Your task to perform on an android device: turn on improve location accuracy Image 0: 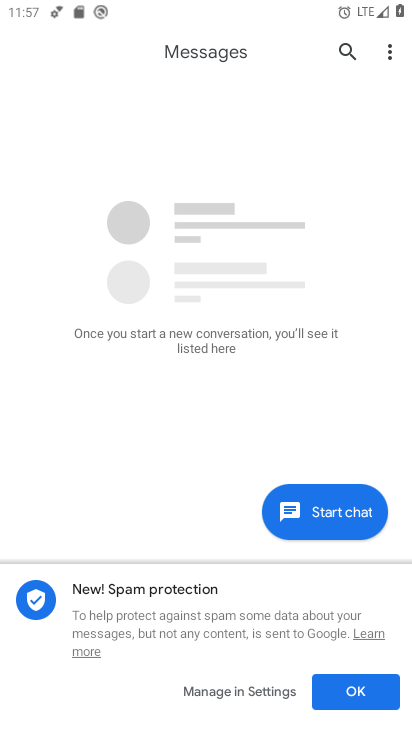
Step 0: press home button
Your task to perform on an android device: turn on improve location accuracy Image 1: 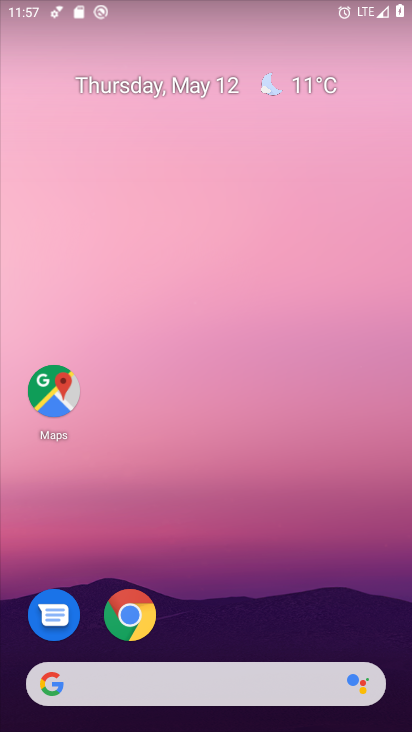
Step 1: drag from (253, 345) to (297, 19)
Your task to perform on an android device: turn on improve location accuracy Image 2: 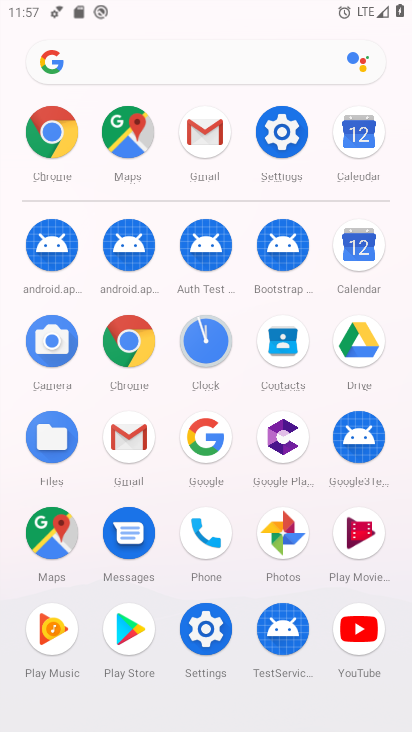
Step 2: click (294, 133)
Your task to perform on an android device: turn on improve location accuracy Image 3: 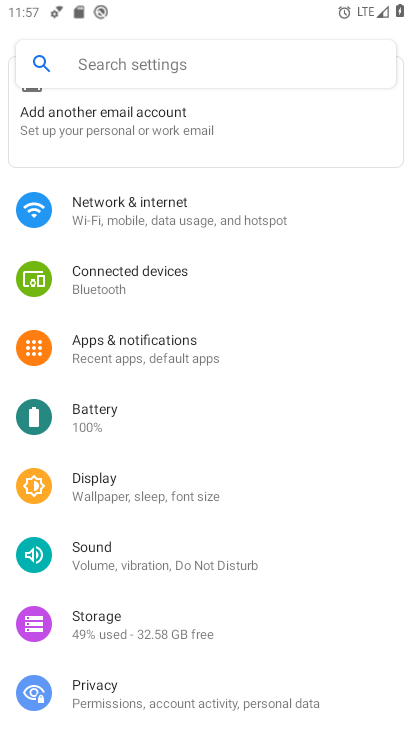
Step 3: drag from (153, 612) to (236, 164)
Your task to perform on an android device: turn on improve location accuracy Image 4: 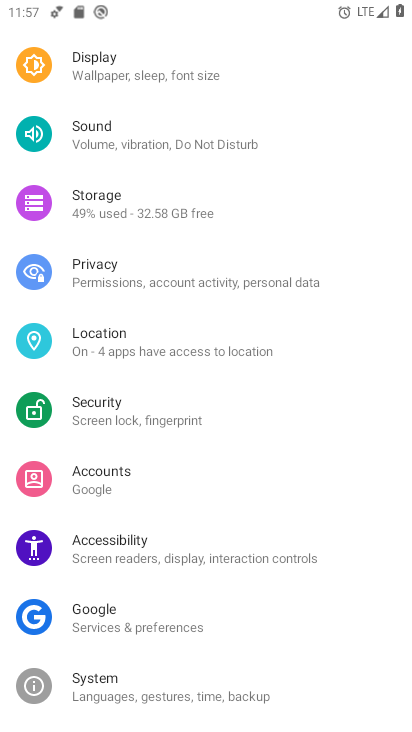
Step 4: click (208, 339)
Your task to perform on an android device: turn on improve location accuracy Image 5: 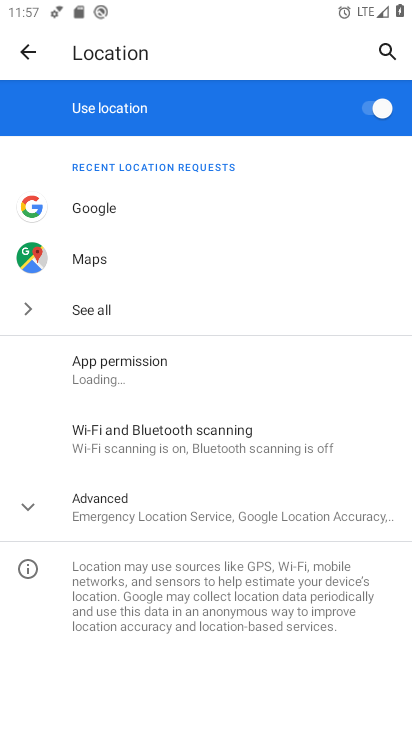
Step 5: click (31, 503)
Your task to perform on an android device: turn on improve location accuracy Image 6: 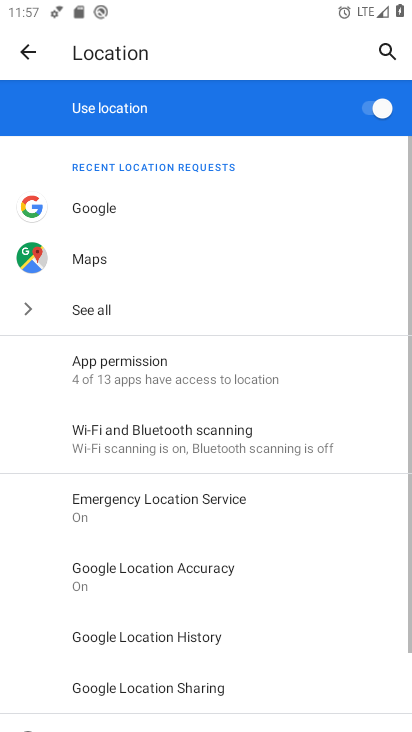
Step 6: task complete